Your task to perform on an android device: toggle improve location accuracy Image 0: 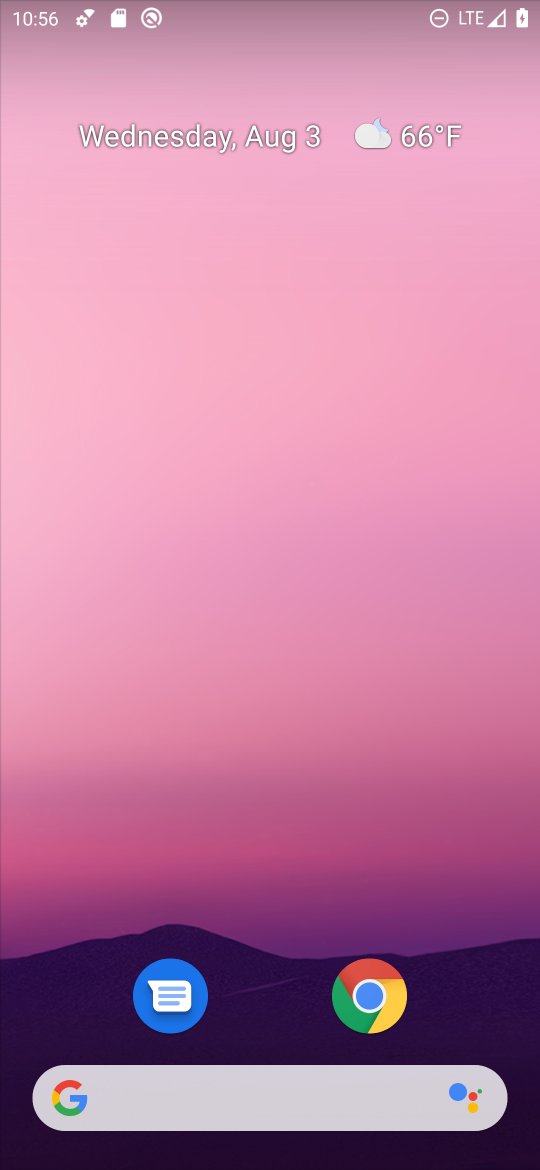
Step 0: drag from (306, 864) to (339, 49)
Your task to perform on an android device: toggle improve location accuracy Image 1: 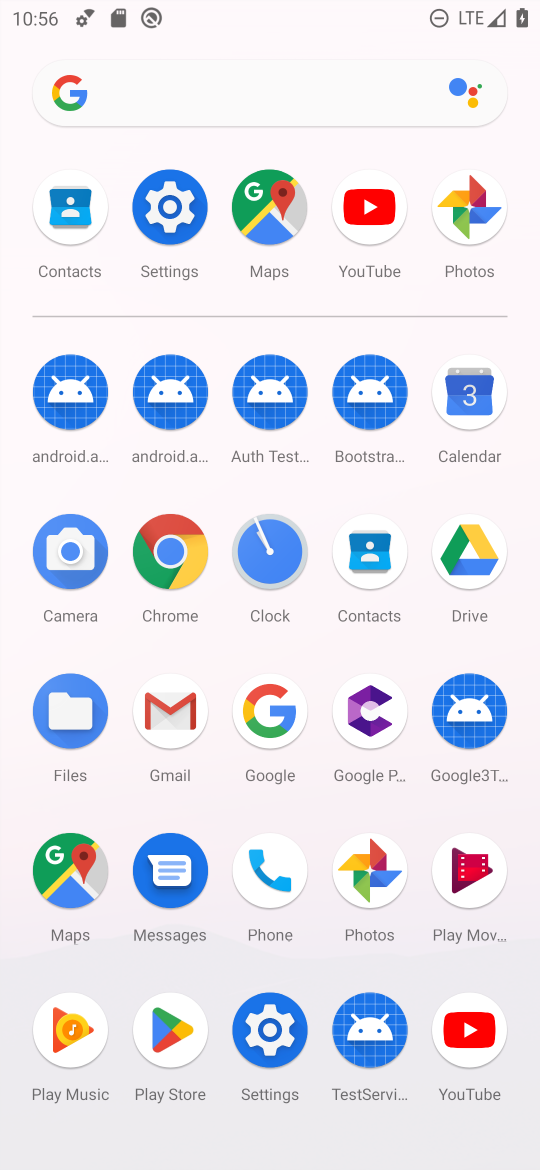
Step 1: click (165, 204)
Your task to perform on an android device: toggle improve location accuracy Image 2: 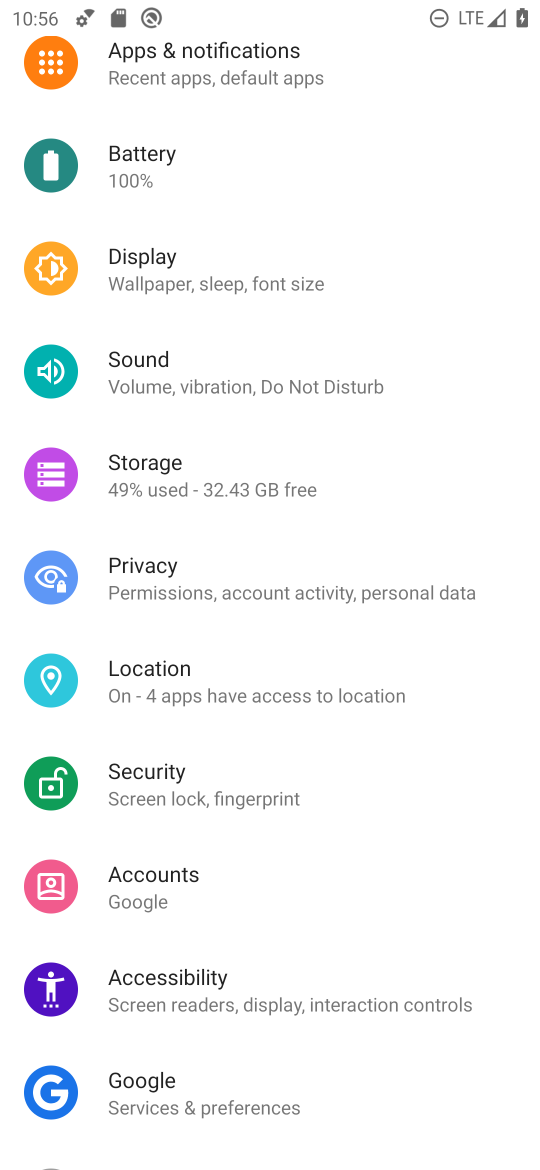
Step 2: click (238, 668)
Your task to perform on an android device: toggle improve location accuracy Image 3: 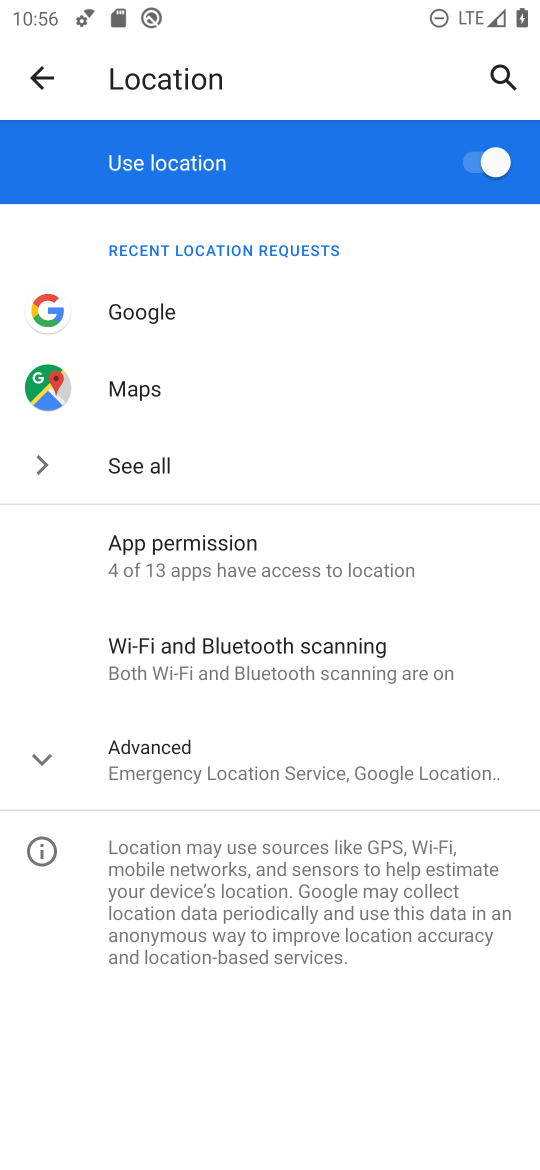
Step 3: click (49, 757)
Your task to perform on an android device: toggle improve location accuracy Image 4: 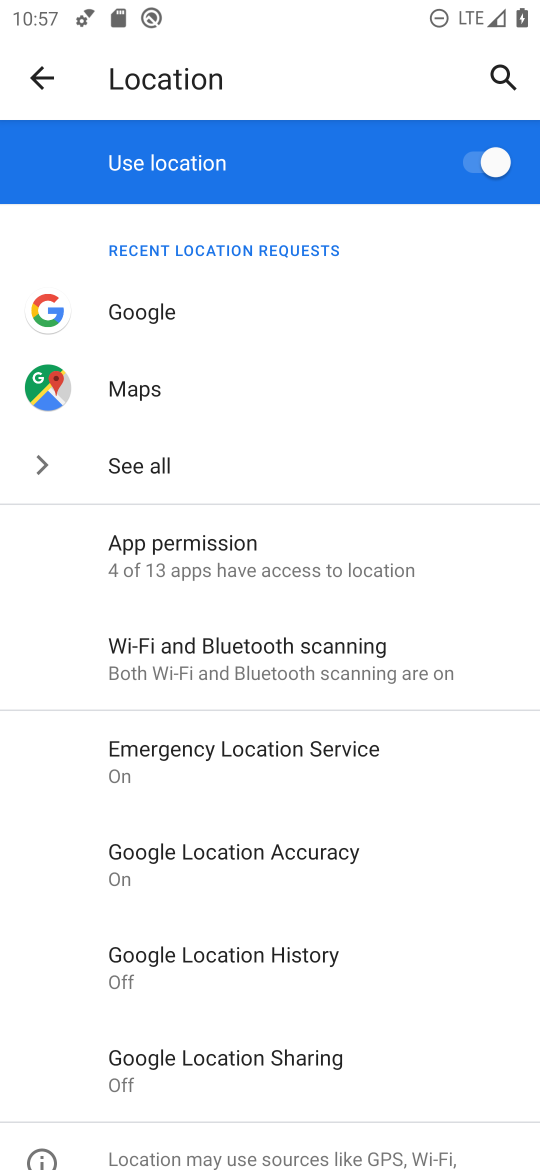
Step 4: click (243, 851)
Your task to perform on an android device: toggle improve location accuracy Image 5: 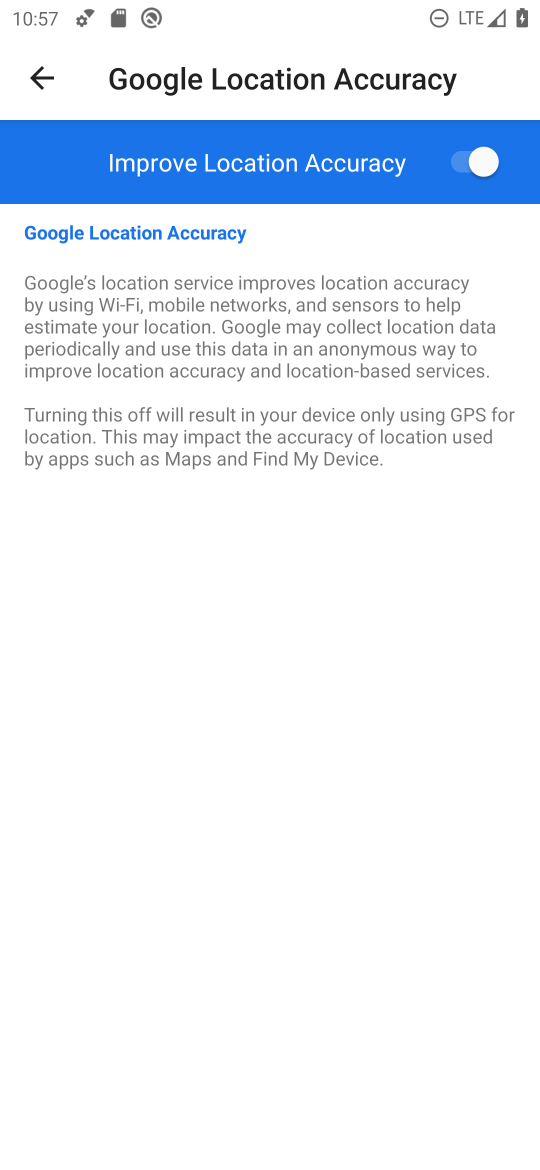
Step 5: click (459, 160)
Your task to perform on an android device: toggle improve location accuracy Image 6: 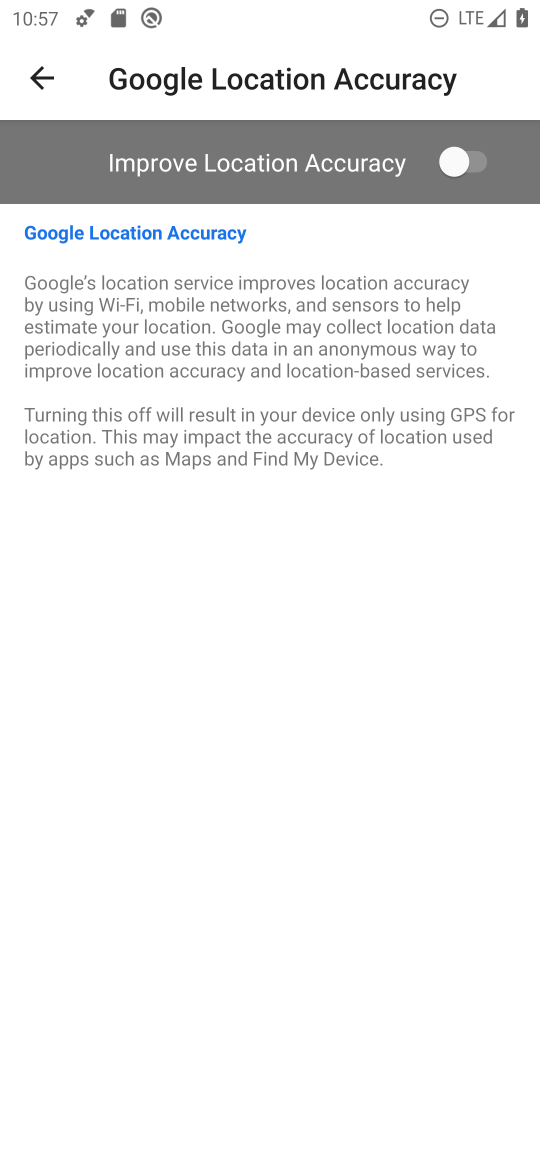
Step 6: task complete